Your task to perform on an android device: refresh tabs in the chrome app Image 0: 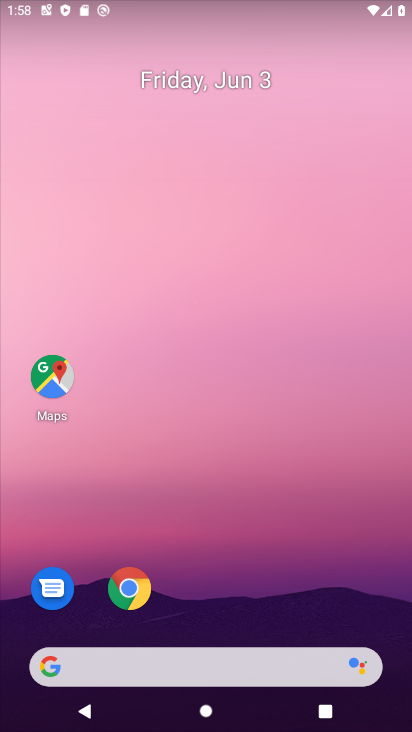
Step 0: drag from (222, 617) to (255, 215)
Your task to perform on an android device: refresh tabs in the chrome app Image 1: 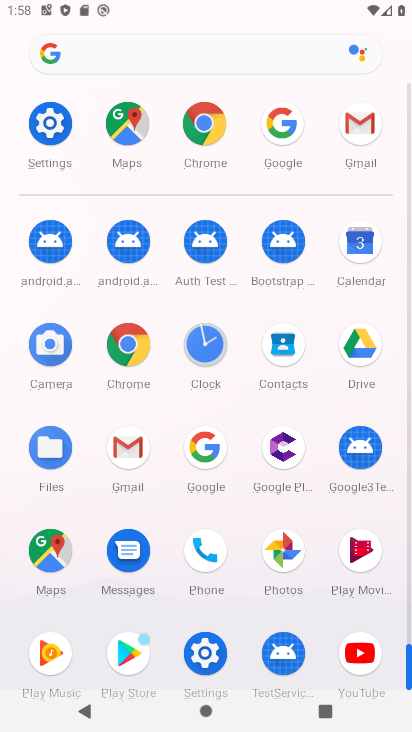
Step 1: click (150, 355)
Your task to perform on an android device: refresh tabs in the chrome app Image 2: 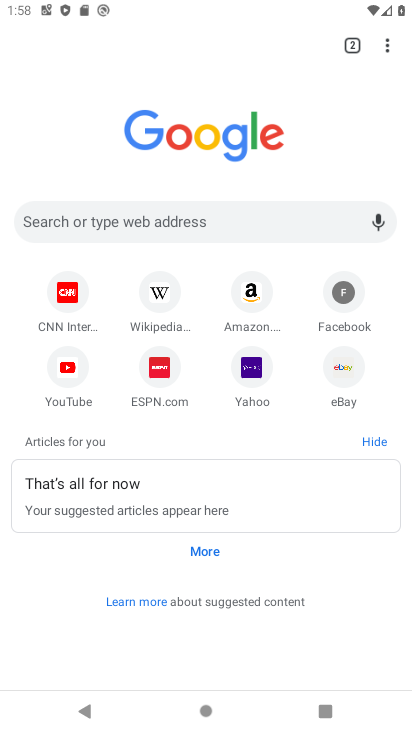
Step 2: click (381, 52)
Your task to perform on an android device: refresh tabs in the chrome app Image 3: 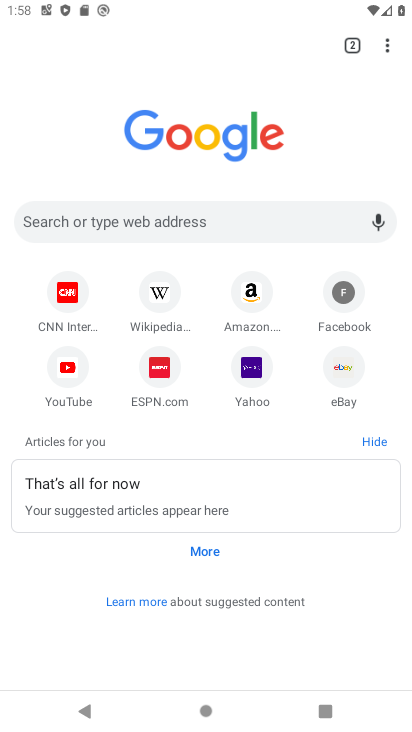
Step 3: click (387, 46)
Your task to perform on an android device: refresh tabs in the chrome app Image 4: 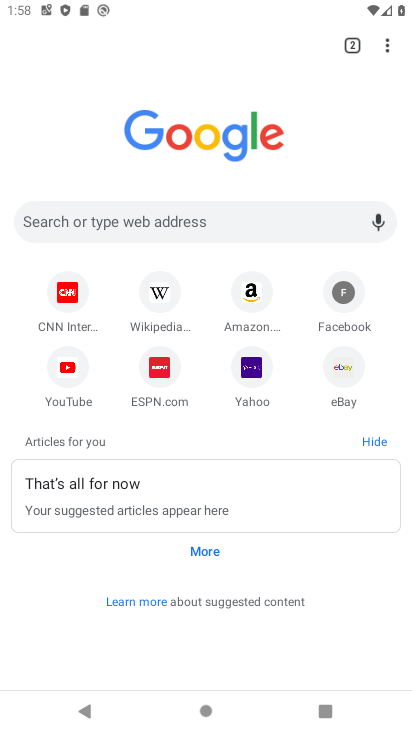
Step 4: click (390, 50)
Your task to perform on an android device: refresh tabs in the chrome app Image 5: 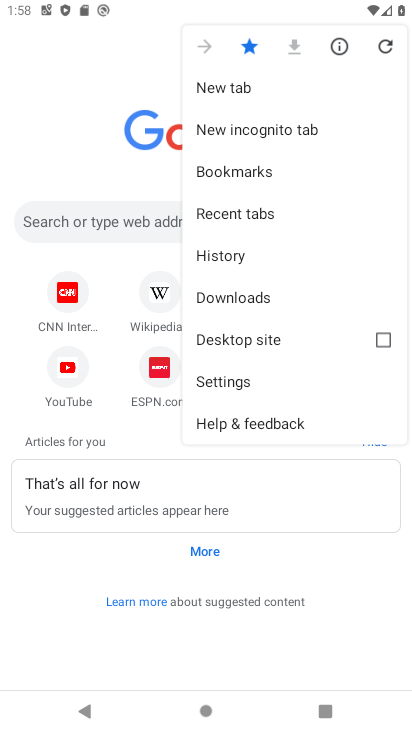
Step 5: click (382, 45)
Your task to perform on an android device: refresh tabs in the chrome app Image 6: 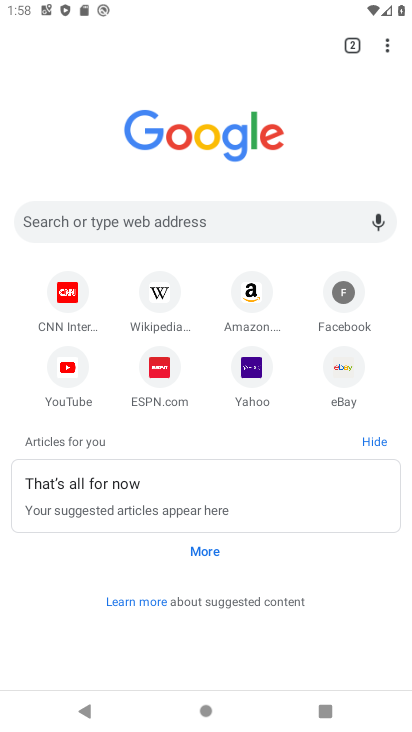
Step 6: task complete